Your task to perform on an android device: turn on sleep mode Image 0: 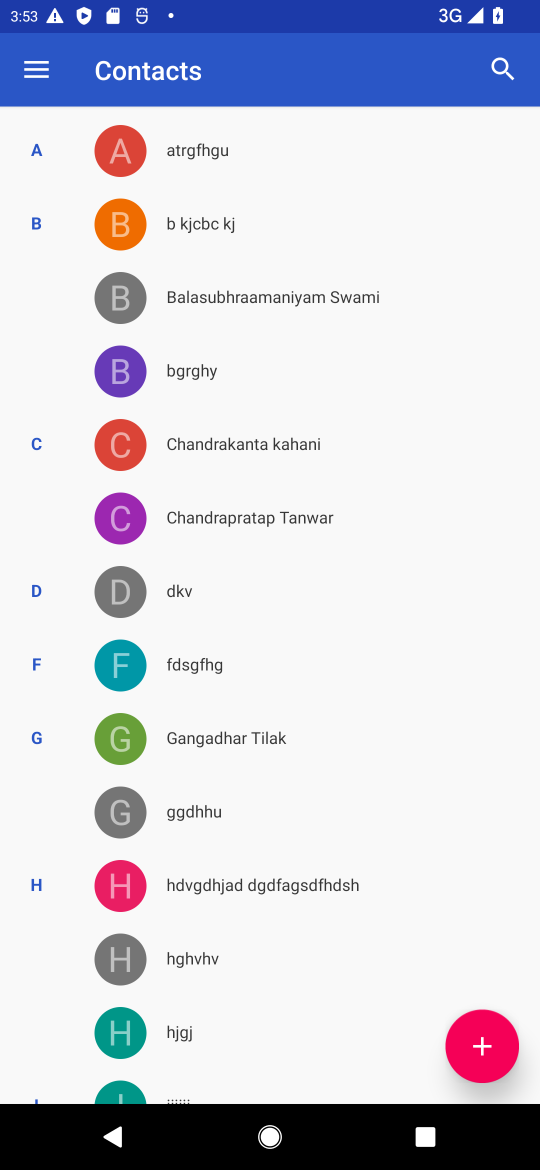
Step 0: press home button
Your task to perform on an android device: turn on sleep mode Image 1: 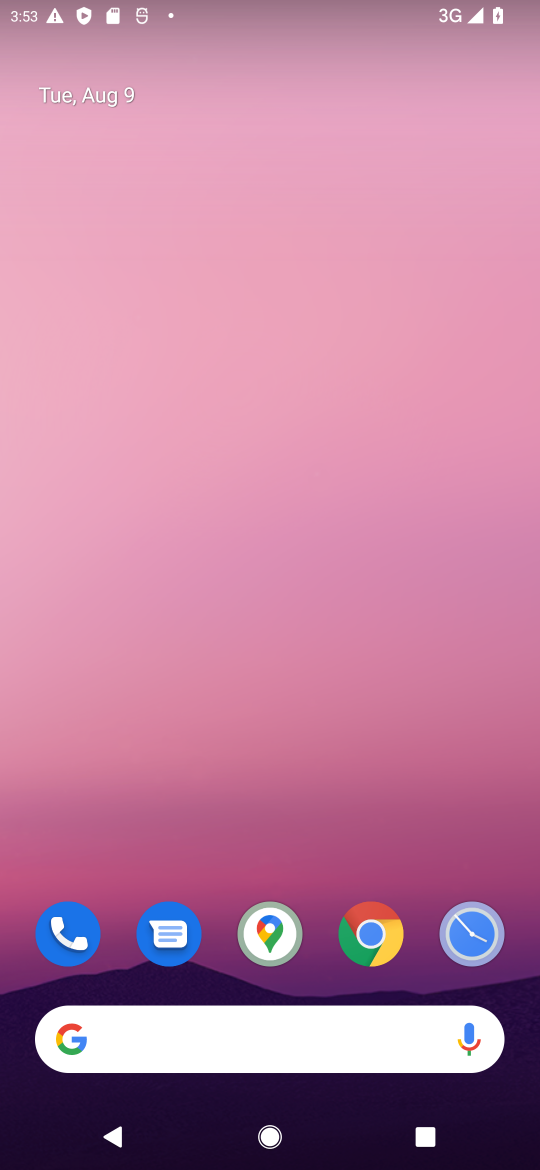
Step 1: drag from (313, 992) to (205, 85)
Your task to perform on an android device: turn on sleep mode Image 2: 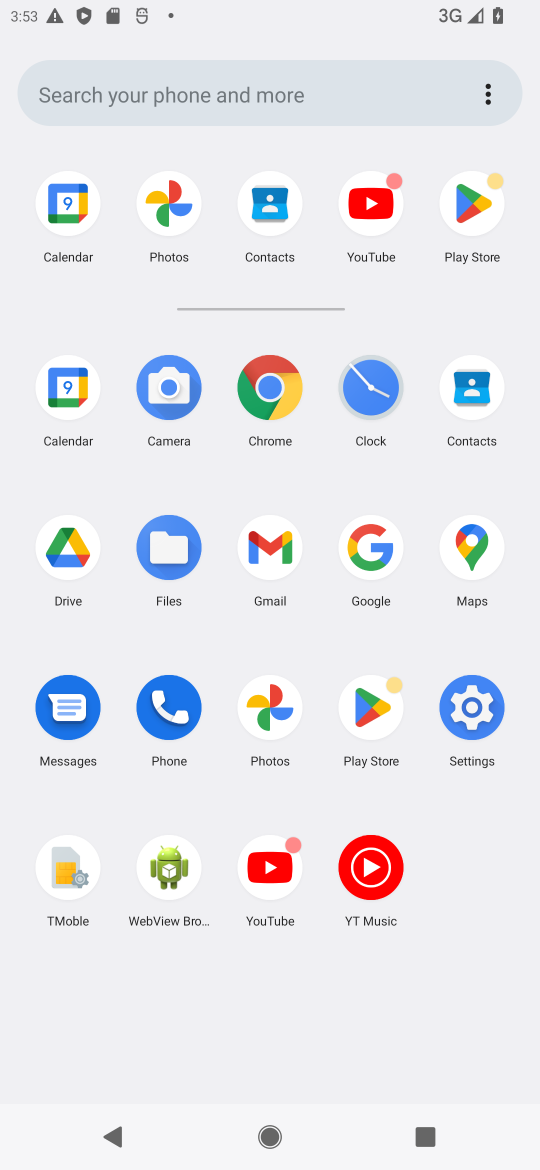
Step 2: click (472, 703)
Your task to perform on an android device: turn on sleep mode Image 3: 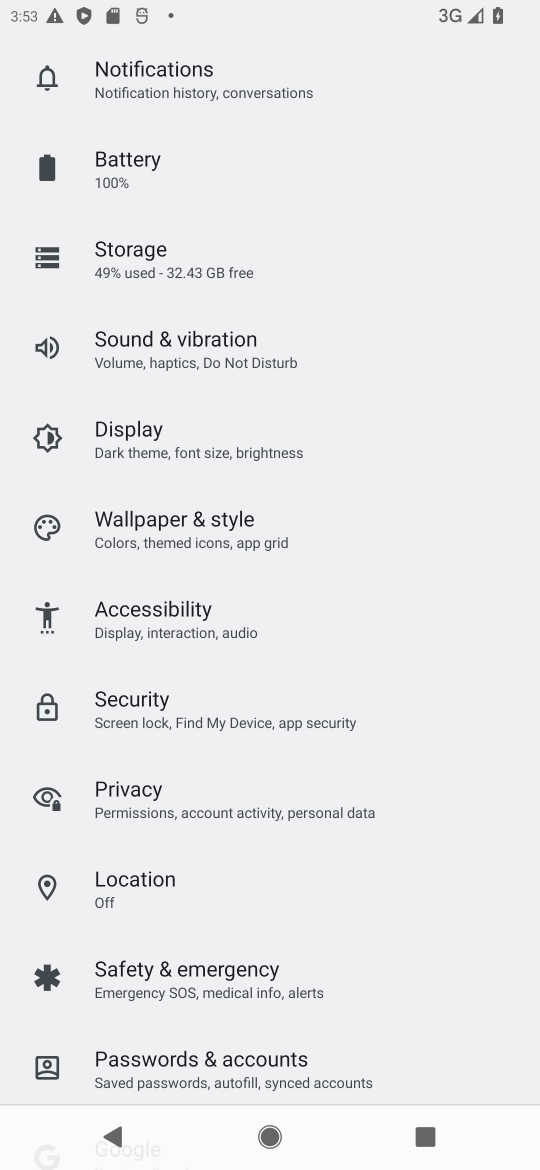
Step 3: click (242, 442)
Your task to perform on an android device: turn on sleep mode Image 4: 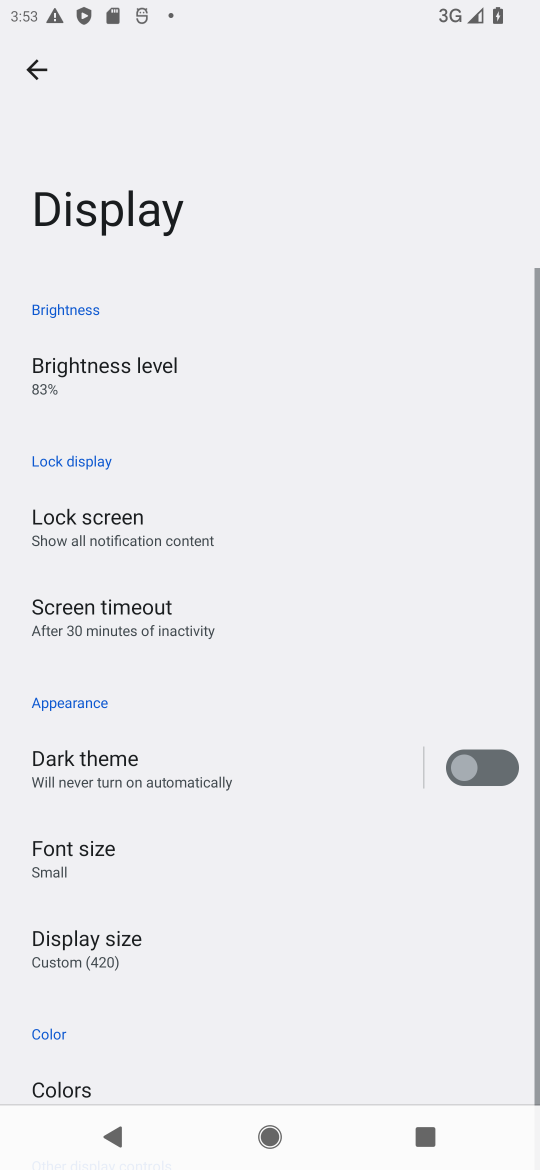
Step 4: task complete